Your task to perform on an android device: What's on my calendar tomorrow? Image 0: 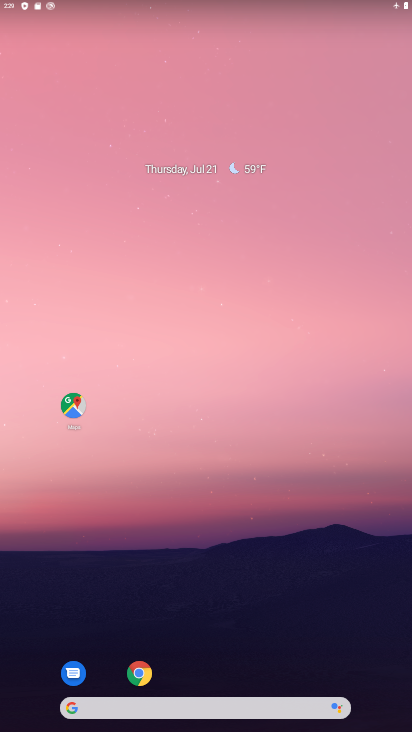
Step 0: drag from (376, 684) to (326, 159)
Your task to perform on an android device: What's on my calendar tomorrow? Image 1: 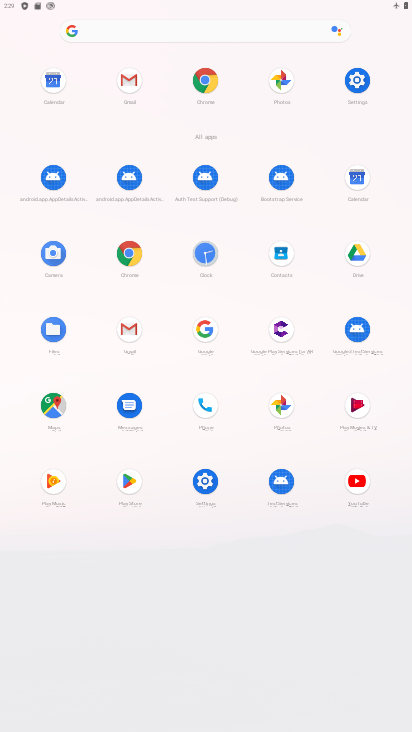
Step 1: click (357, 174)
Your task to perform on an android device: What's on my calendar tomorrow? Image 2: 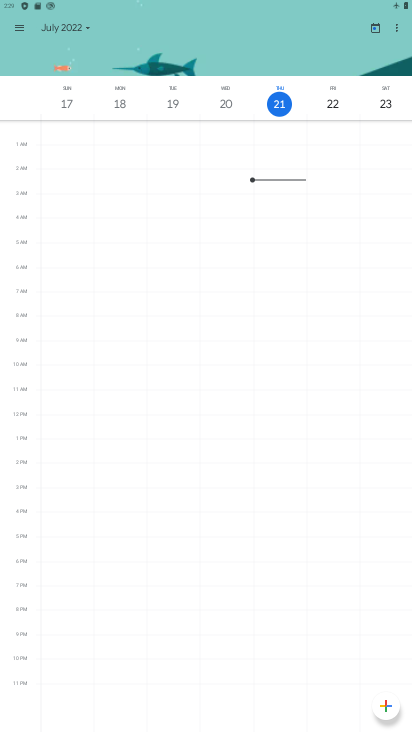
Step 2: click (19, 23)
Your task to perform on an android device: What's on my calendar tomorrow? Image 3: 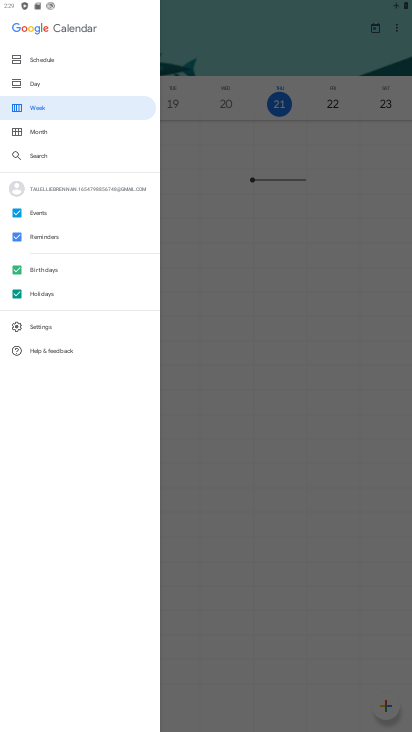
Step 3: click (27, 80)
Your task to perform on an android device: What's on my calendar tomorrow? Image 4: 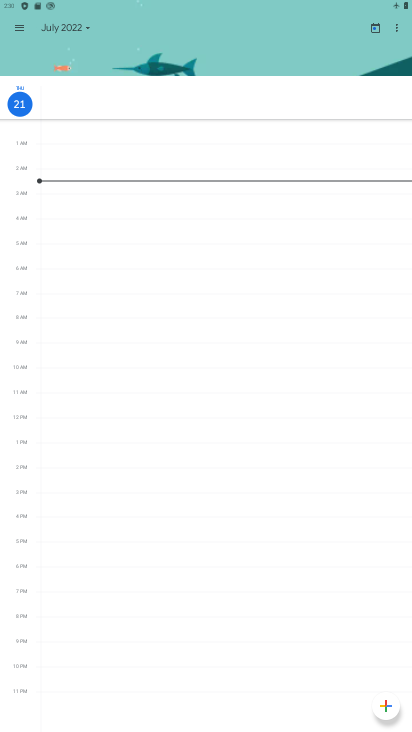
Step 4: click (85, 27)
Your task to perform on an android device: What's on my calendar tomorrow? Image 5: 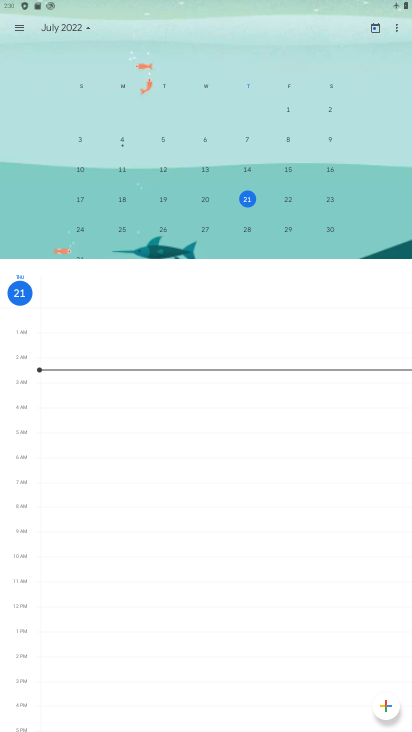
Step 5: click (291, 200)
Your task to perform on an android device: What's on my calendar tomorrow? Image 6: 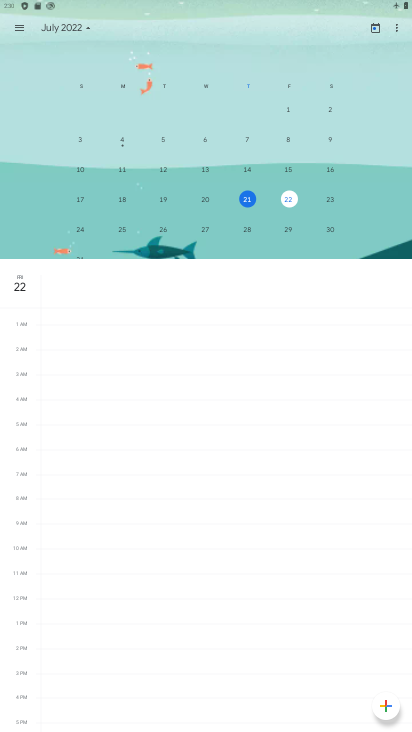
Step 6: task complete